Your task to perform on an android device: Go to calendar. Show me events next week Image 0: 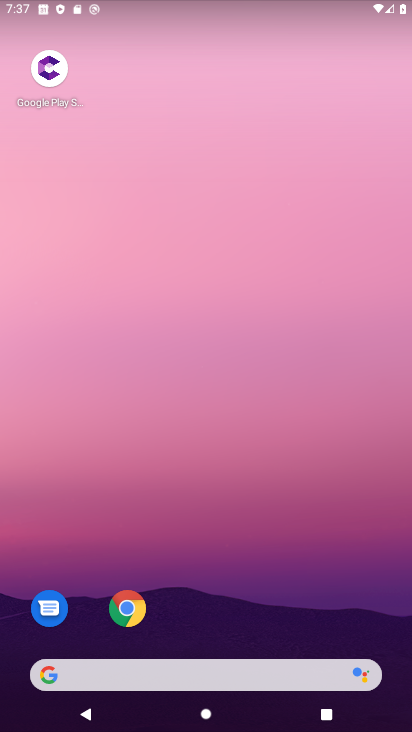
Step 0: press home button
Your task to perform on an android device: Go to calendar. Show me events next week Image 1: 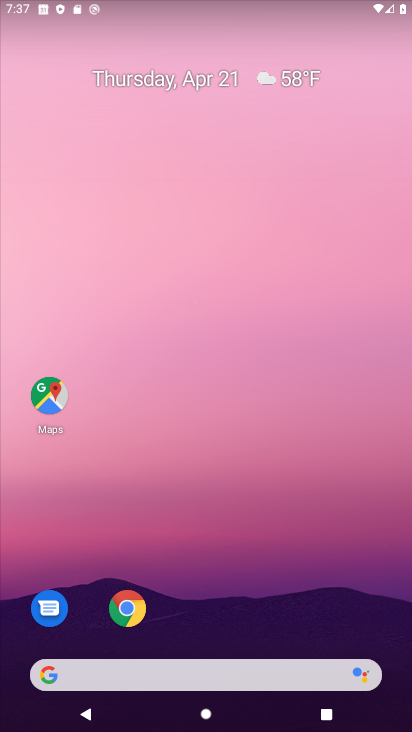
Step 1: drag from (278, 588) to (306, 186)
Your task to perform on an android device: Go to calendar. Show me events next week Image 2: 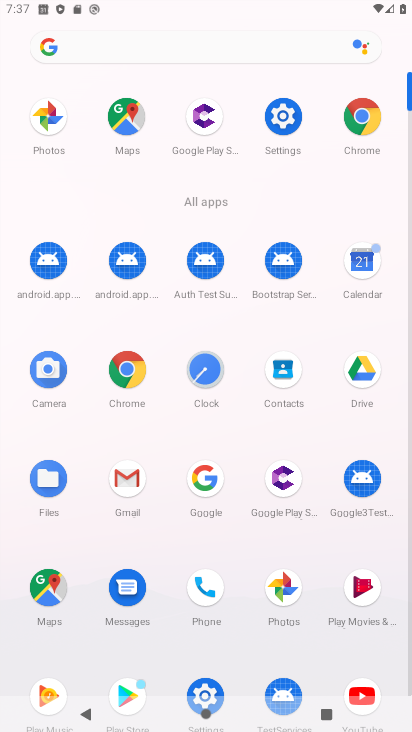
Step 2: click (355, 260)
Your task to perform on an android device: Go to calendar. Show me events next week Image 3: 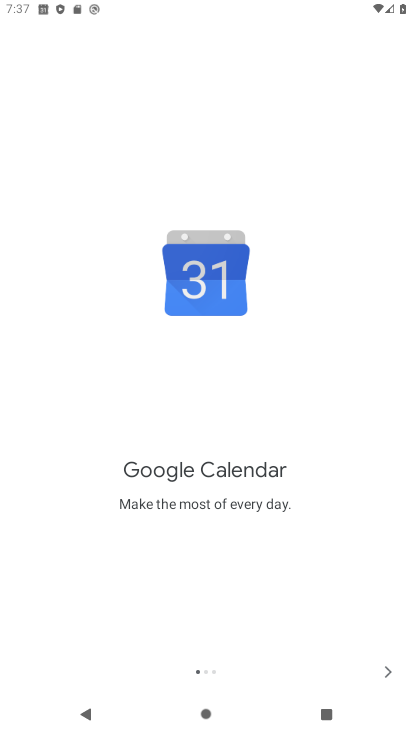
Step 3: click (387, 666)
Your task to perform on an android device: Go to calendar. Show me events next week Image 4: 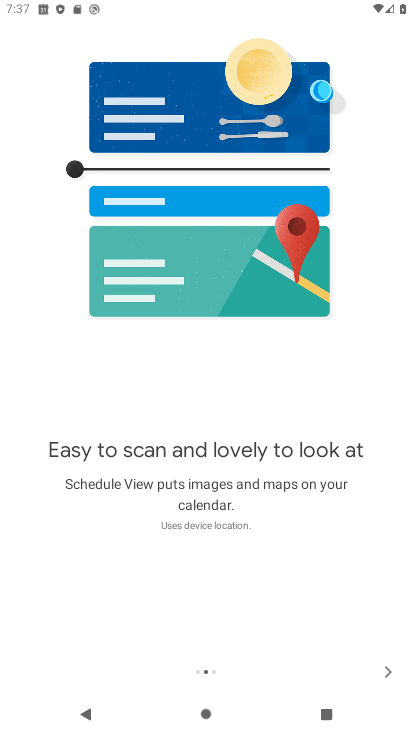
Step 4: click (388, 672)
Your task to perform on an android device: Go to calendar. Show me events next week Image 5: 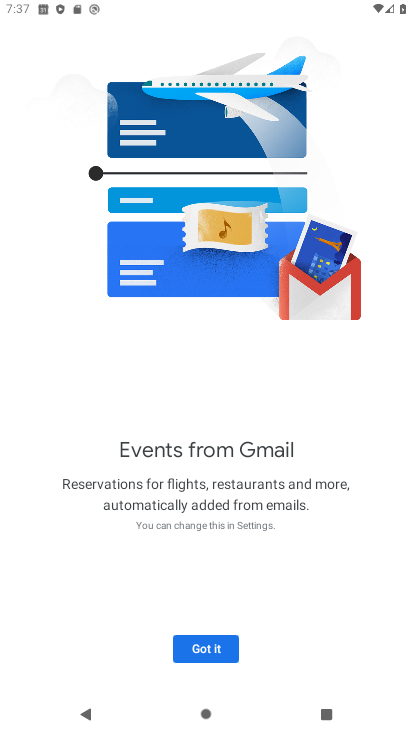
Step 5: click (222, 639)
Your task to perform on an android device: Go to calendar. Show me events next week Image 6: 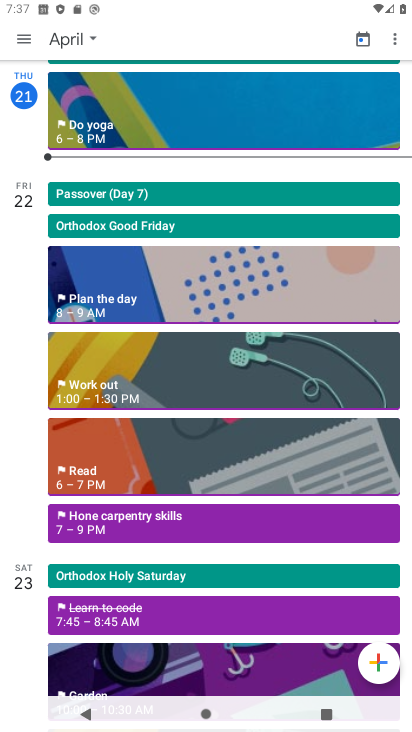
Step 6: click (26, 40)
Your task to perform on an android device: Go to calendar. Show me events next week Image 7: 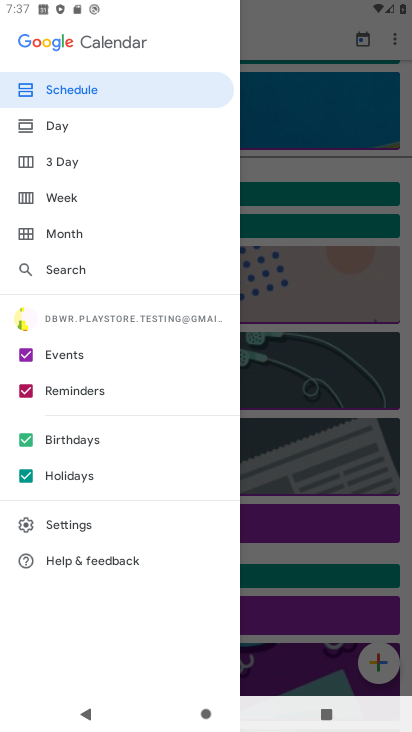
Step 7: click (45, 194)
Your task to perform on an android device: Go to calendar. Show me events next week Image 8: 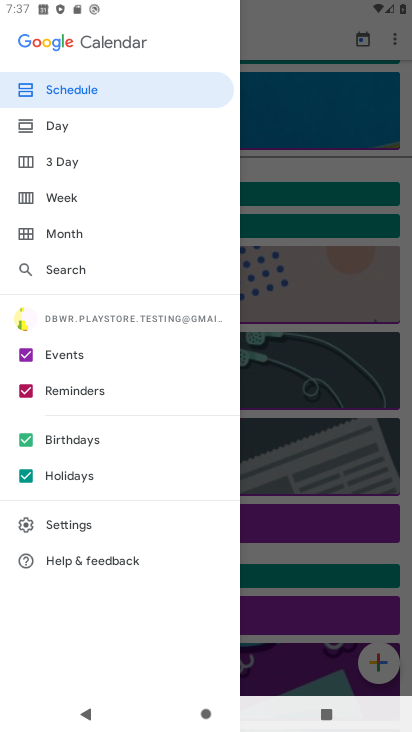
Step 8: click (29, 196)
Your task to perform on an android device: Go to calendar. Show me events next week Image 9: 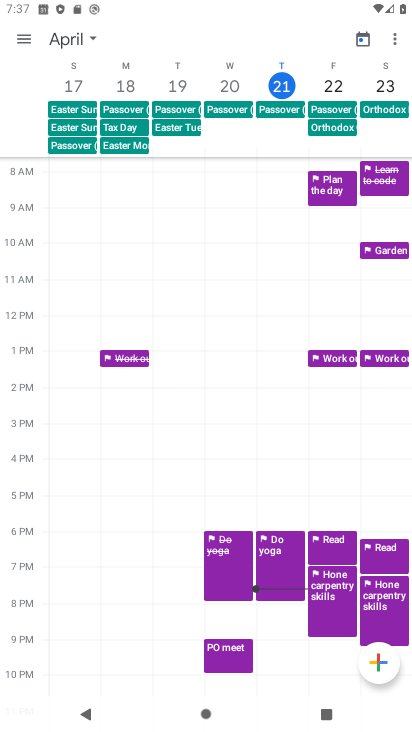
Step 9: task complete